Your task to perform on an android device: Search for pizza restaurants on Maps Image 0: 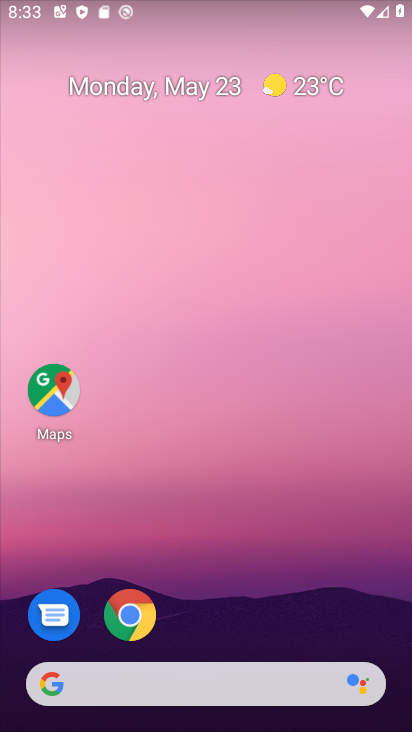
Step 0: click (51, 394)
Your task to perform on an android device: Search for pizza restaurants on Maps Image 1: 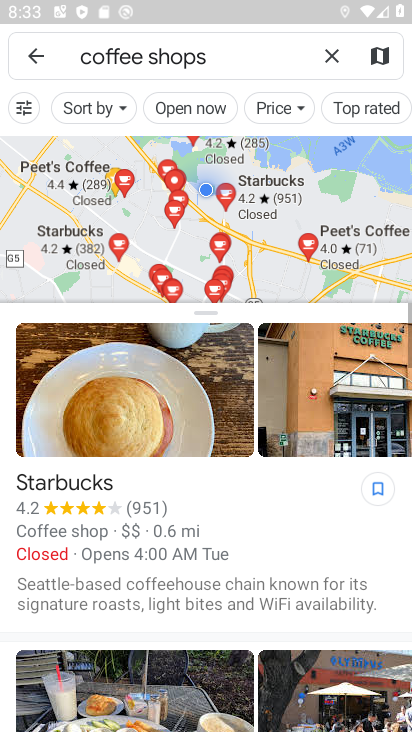
Step 1: click (332, 60)
Your task to perform on an android device: Search for pizza restaurants on Maps Image 2: 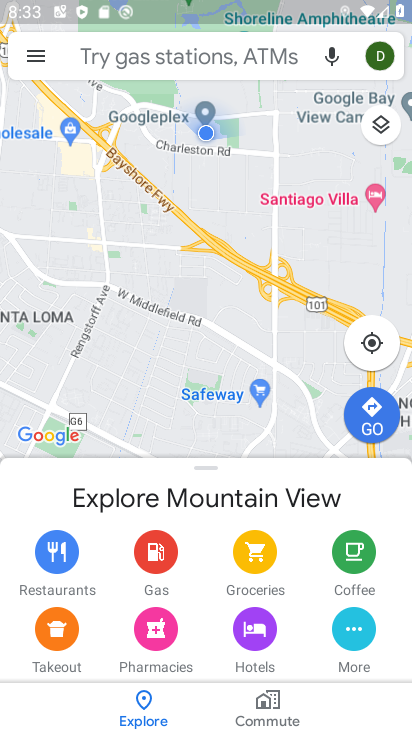
Step 2: type "Pizza restaurants"
Your task to perform on an android device: Search for pizza restaurants on Maps Image 3: 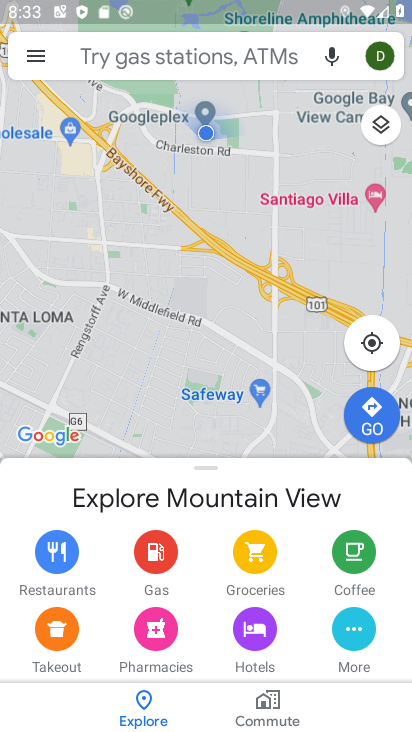
Step 3: click (238, 50)
Your task to perform on an android device: Search for pizza restaurants on Maps Image 4: 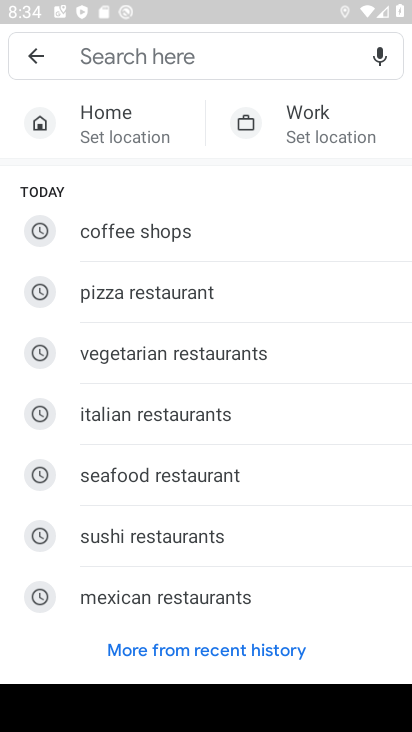
Step 4: click (126, 298)
Your task to perform on an android device: Search for pizza restaurants on Maps Image 5: 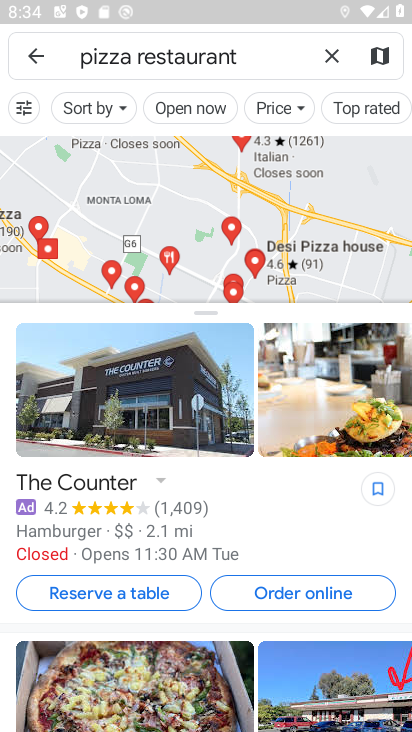
Step 5: task complete